Your task to perform on an android device: Show me popular games on the Play Store Image 0: 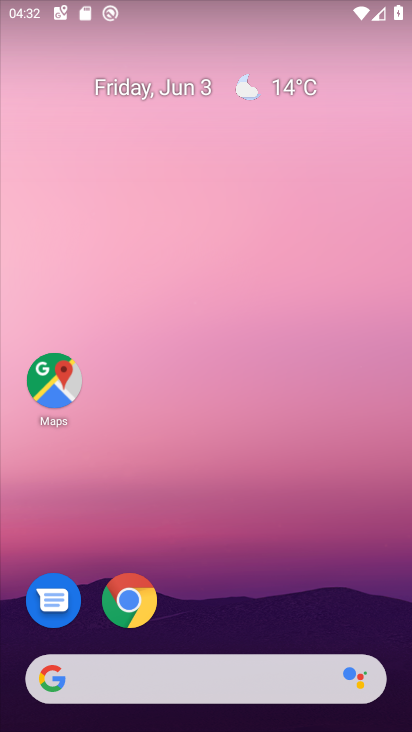
Step 0: drag from (231, 516) to (185, 82)
Your task to perform on an android device: Show me popular games on the Play Store Image 1: 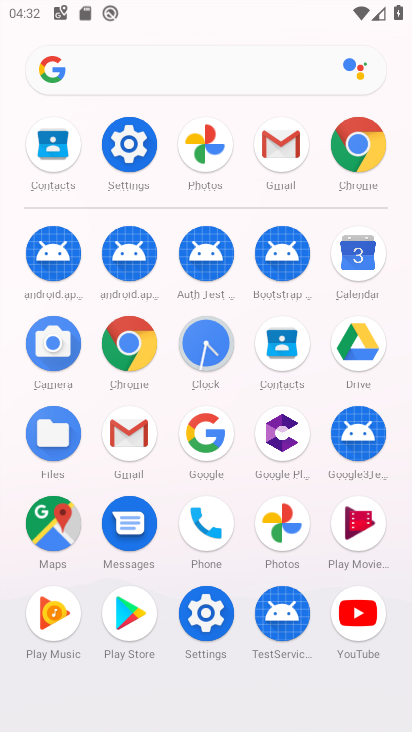
Step 1: click (127, 623)
Your task to perform on an android device: Show me popular games on the Play Store Image 2: 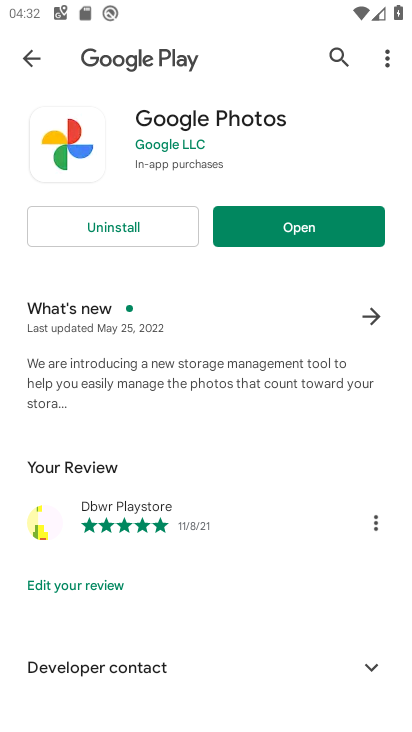
Step 2: click (35, 58)
Your task to perform on an android device: Show me popular games on the Play Store Image 3: 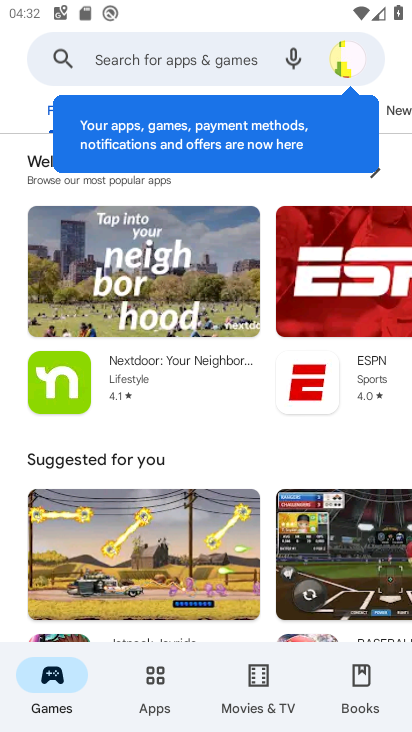
Step 3: task complete